Your task to perform on an android device: check google app version Image 0: 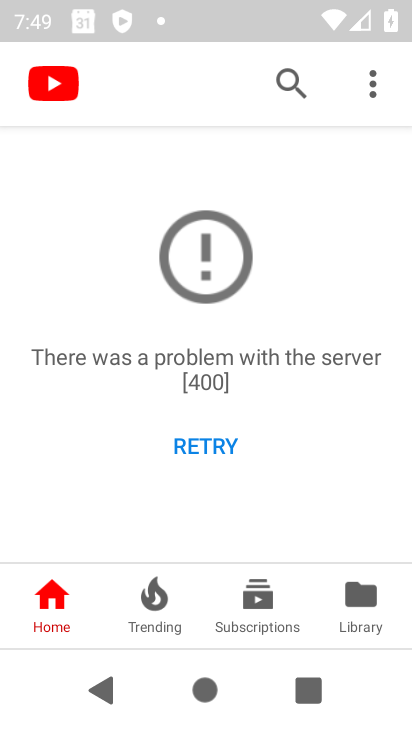
Step 0: click (411, 177)
Your task to perform on an android device: check google app version Image 1: 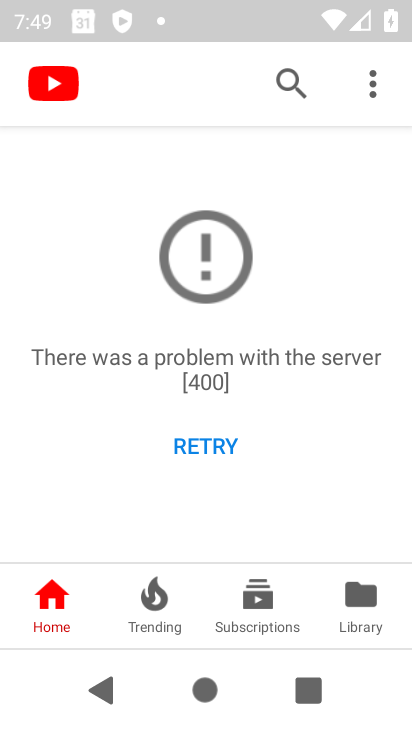
Step 1: press home button
Your task to perform on an android device: check google app version Image 2: 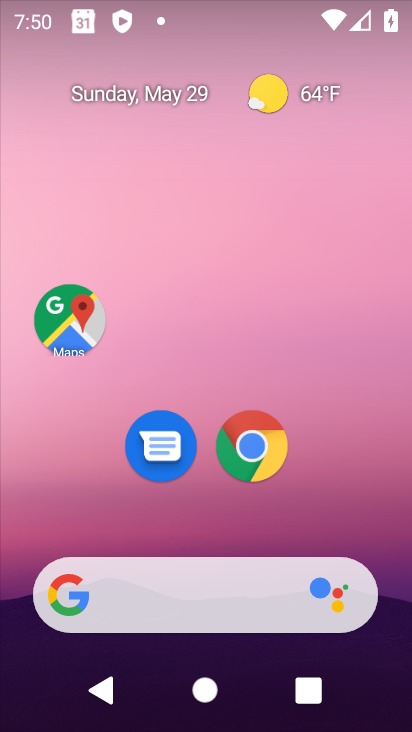
Step 2: drag from (214, 517) to (271, 54)
Your task to perform on an android device: check google app version Image 3: 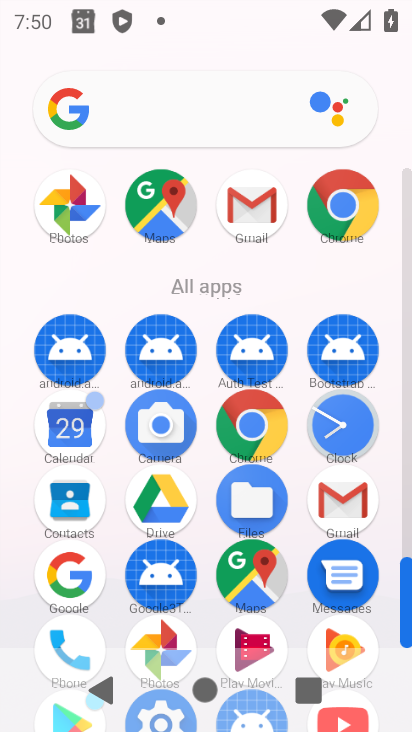
Step 3: drag from (197, 591) to (160, 176)
Your task to perform on an android device: check google app version Image 4: 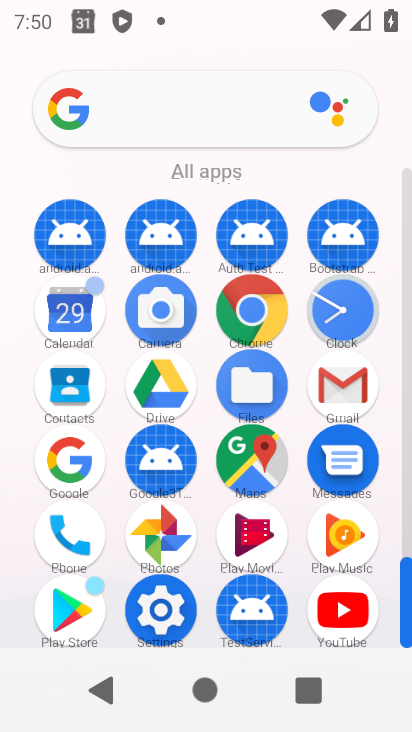
Step 4: drag from (208, 513) to (202, 268)
Your task to perform on an android device: check google app version Image 5: 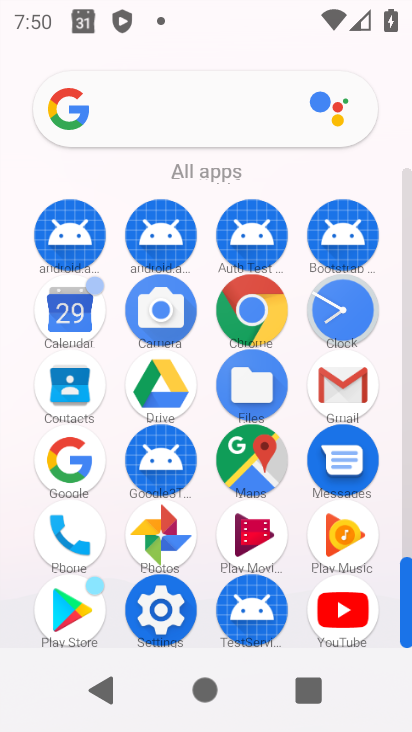
Step 5: drag from (212, 596) to (208, 360)
Your task to perform on an android device: check google app version Image 6: 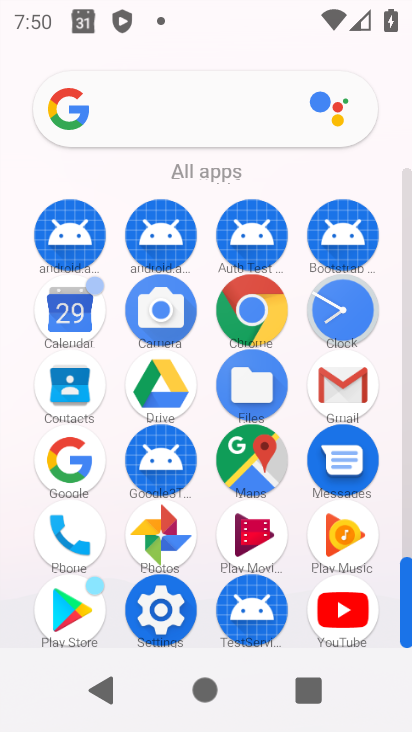
Step 6: click (63, 449)
Your task to perform on an android device: check google app version Image 7: 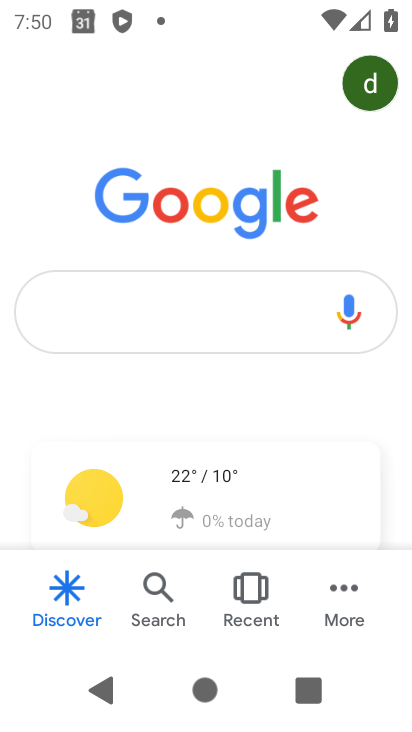
Step 7: drag from (282, 516) to (380, 435)
Your task to perform on an android device: check google app version Image 8: 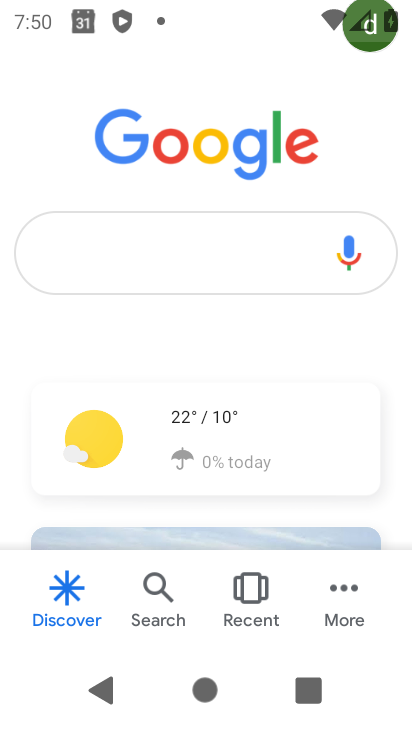
Step 8: drag from (195, 490) to (376, 444)
Your task to perform on an android device: check google app version Image 9: 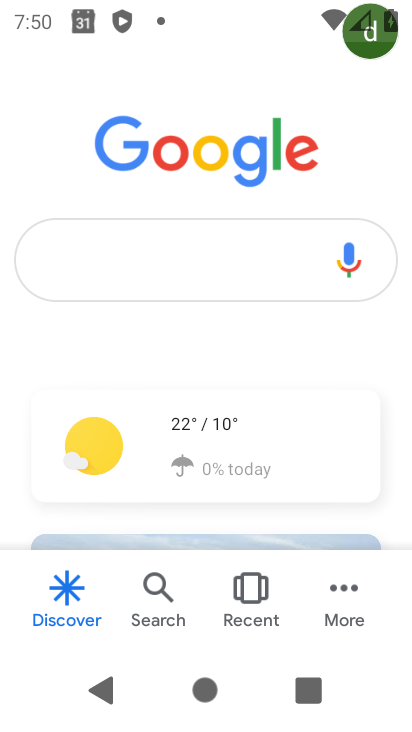
Step 9: drag from (261, 495) to (406, 110)
Your task to perform on an android device: check google app version Image 10: 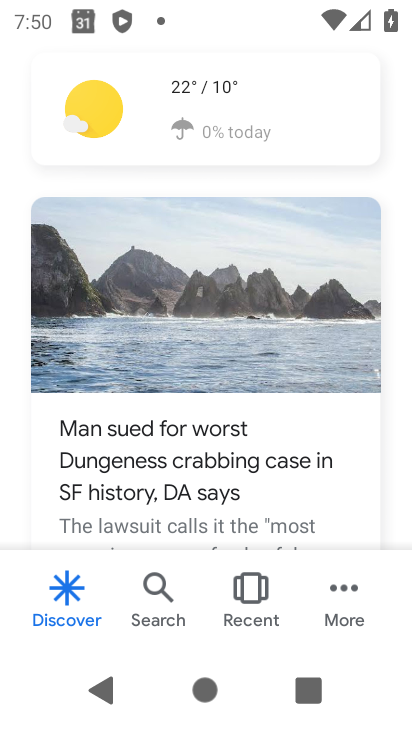
Step 10: drag from (251, 479) to (407, 29)
Your task to perform on an android device: check google app version Image 11: 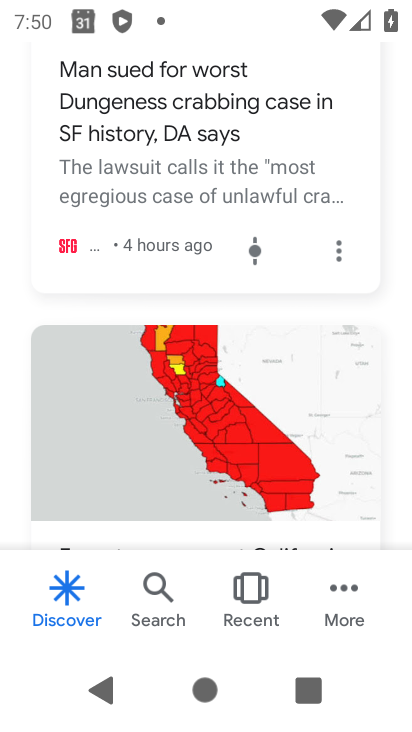
Step 11: drag from (232, 462) to (400, 13)
Your task to perform on an android device: check google app version Image 12: 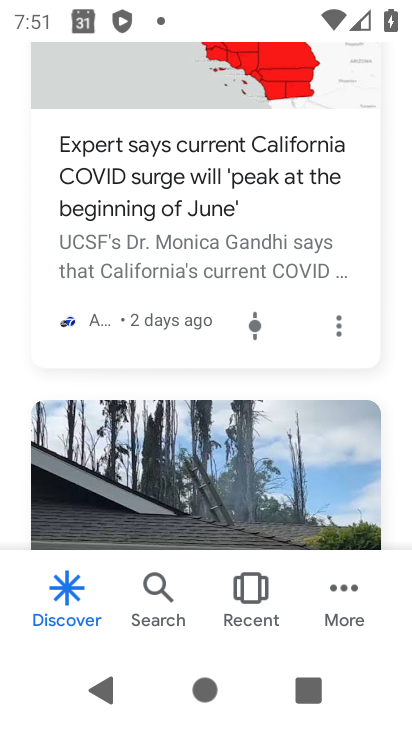
Step 12: click (328, 583)
Your task to perform on an android device: check google app version Image 13: 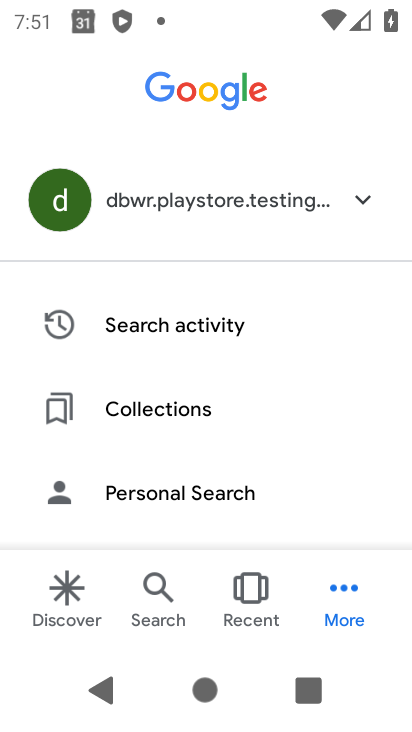
Step 13: drag from (264, 411) to (273, 2)
Your task to perform on an android device: check google app version Image 14: 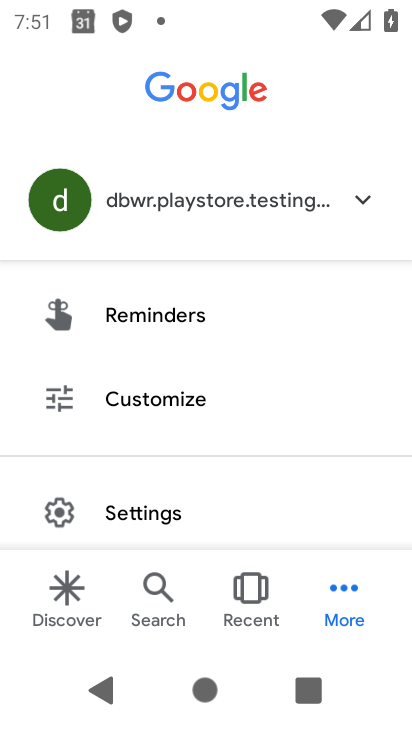
Step 14: drag from (166, 512) to (265, 23)
Your task to perform on an android device: check google app version Image 15: 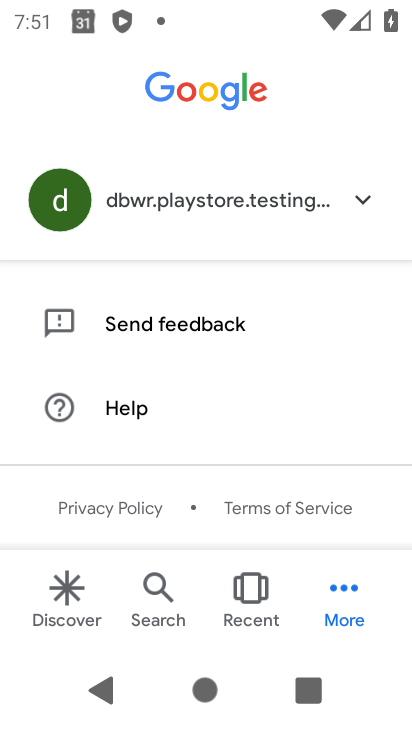
Step 15: drag from (171, 356) to (199, 572)
Your task to perform on an android device: check google app version Image 16: 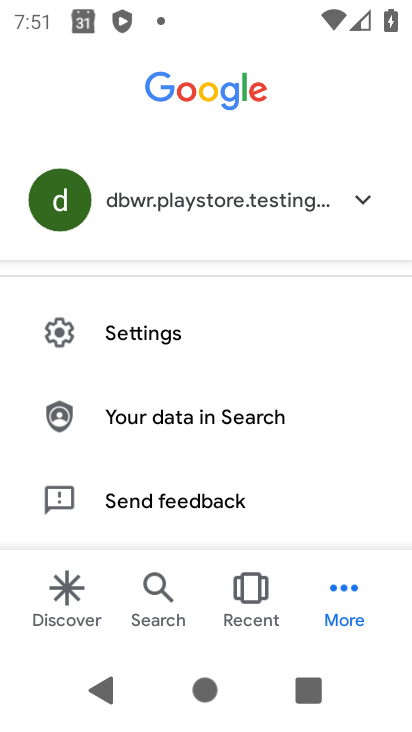
Step 16: click (195, 324)
Your task to perform on an android device: check google app version Image 17: 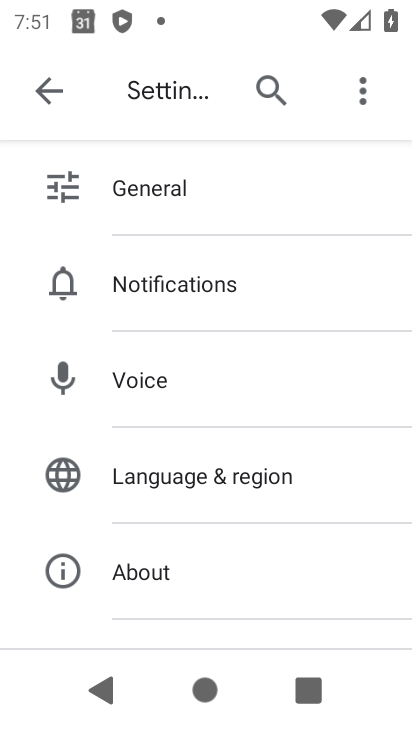
Step 17: click (137, 563)
Your task to perform on an android device: check google app version Image 18: 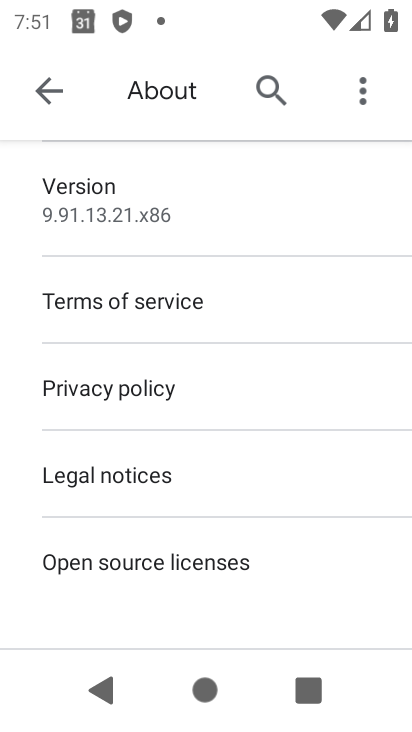
Step 18: click (170, 178)
Your task to perform on an android device: check google app version Image 19: 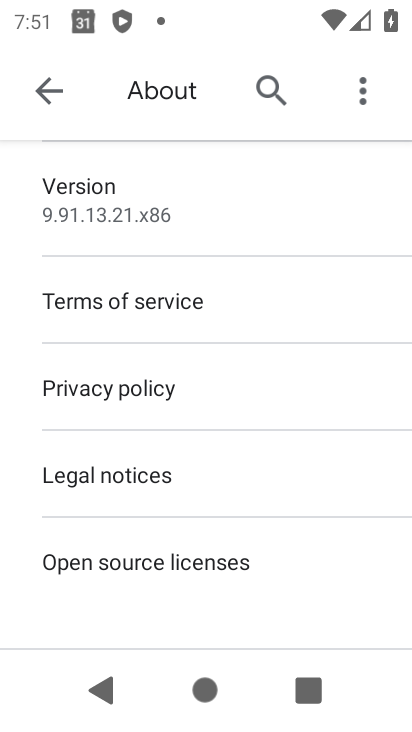
Step 19: task complete